Your task to perform on an android device: Add "lenovo thinkpad" to the cart on target Image 0: 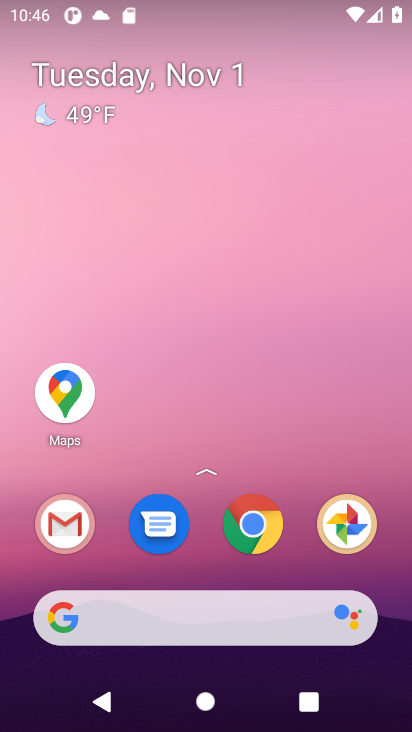
Step 0: press home button
Your task to perform on an android device: Add "lenovo thinkpad" to the cart on target Image 1: 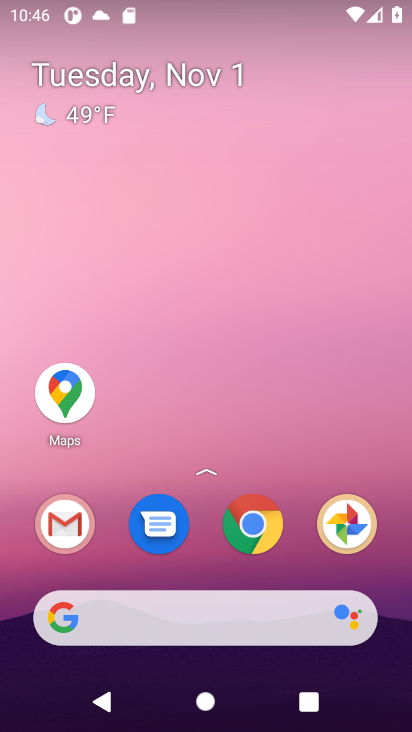
Step 1: click (96, 610)
Your task to perform on an android device: Add "lenovo thinkpad" to the cart on target Image 2: 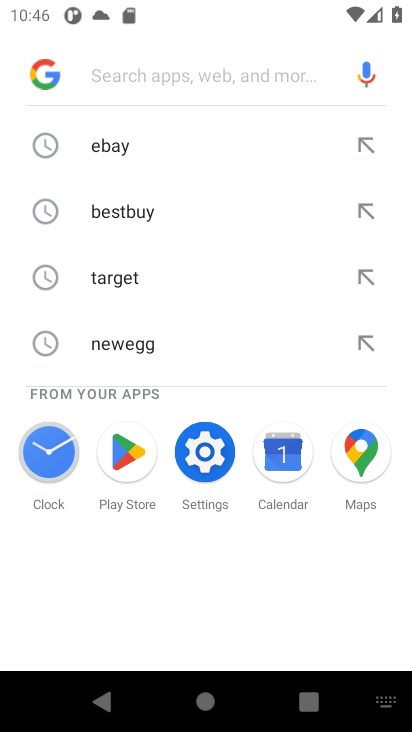
Step 2: type "lenovo thinkpad"
Your task to perform on an android device: Add "lenovo thinkpad" to the cart on target Image 3: 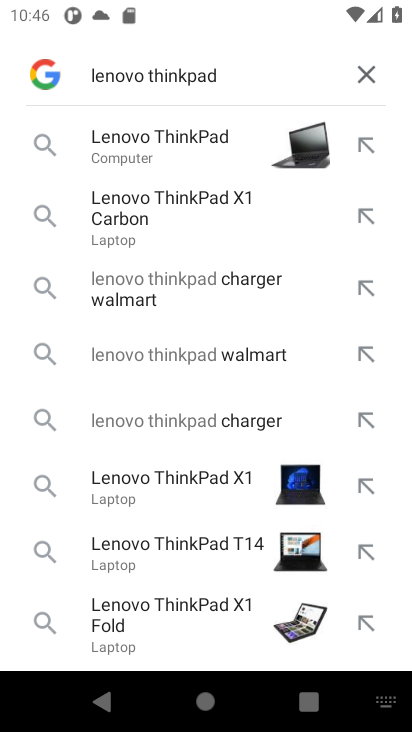
Step 3: press enter
Your task to perform on an android device: Add "lenovo thinkpad" to the cart on target Image 4: 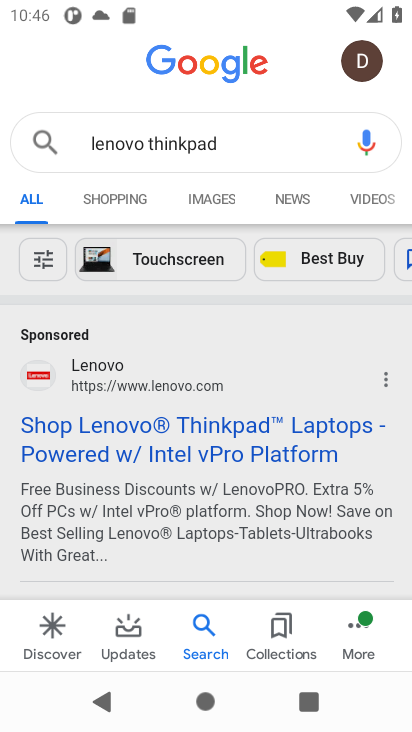
Step 4: drag from (243, 508) to (242, 286)
Your task to perform on an android device: Add "lenovo thinkpad" to the cart on target Image 5: 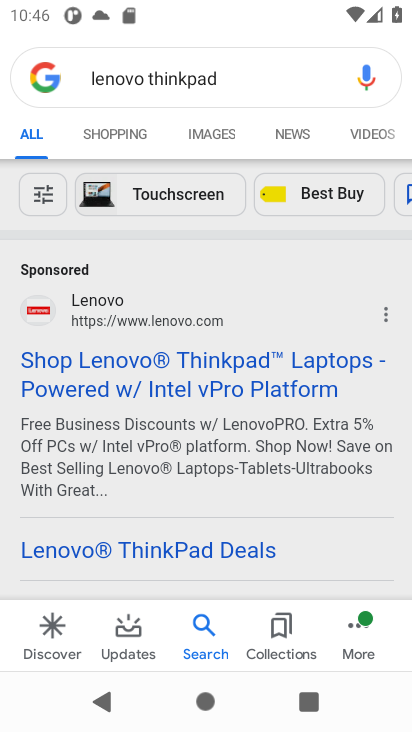
Step 5: drag from (229, 473) to (230, 249)
Your task to perform on an android device: Add "lenovo thinkpad" to the cart on target Image 6: 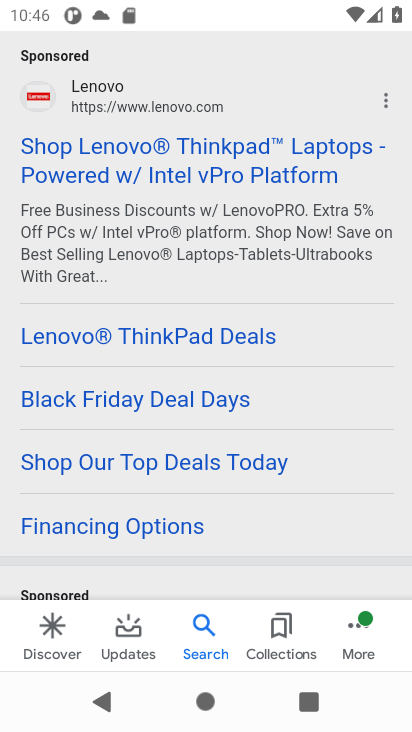
Step 6: drag from (214, 179) to (203, 415)
Your task to perform on an android device: Add "lenovo thinkpad" to the cart on target Image 7: 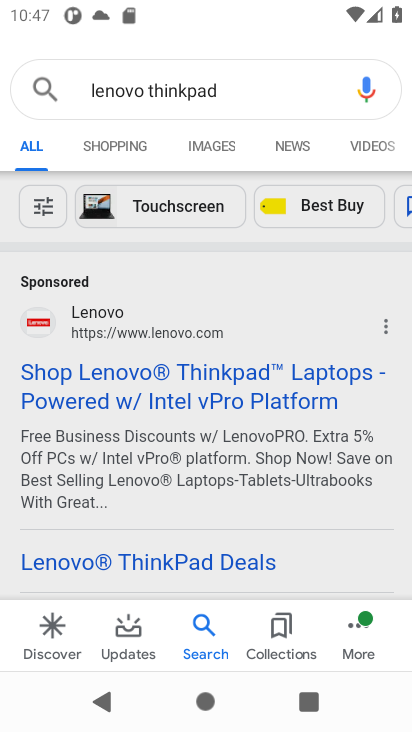
Step 7: drag from (201, 488) to (214, 327)
Your task to perform on an android device: Add "lenovo thinkpad" to the cart on target Image 8: 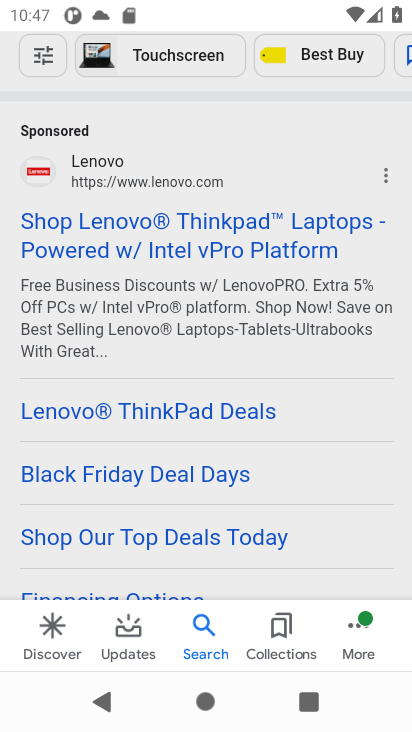
Step 8: drag from (174, 482) to (188, 316)
Your task to perform on an android device: Add "lenovo thinkpad" to the cart on target Image 9: 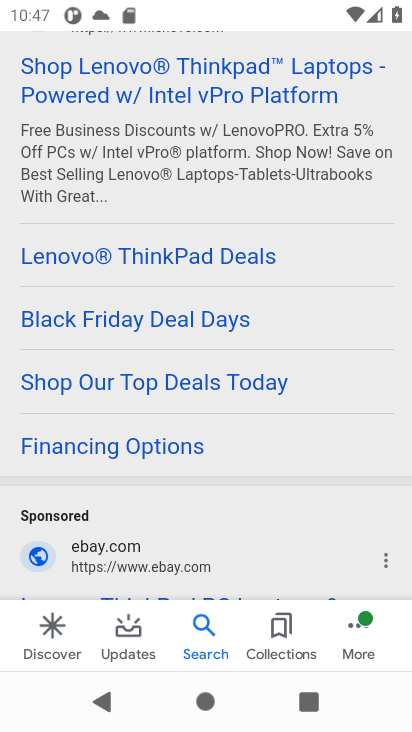
Step 9: click (181, 79)
Your task to perform on an android device: Add "lenovo thinkpad" to the cart on target Image 10: 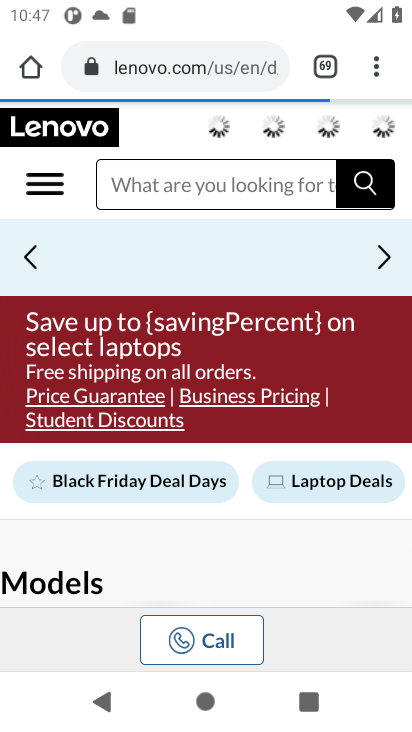
Step 10: task complete